Your task to perform on an android device: What's the weather going to be tomorrow? Image 0: 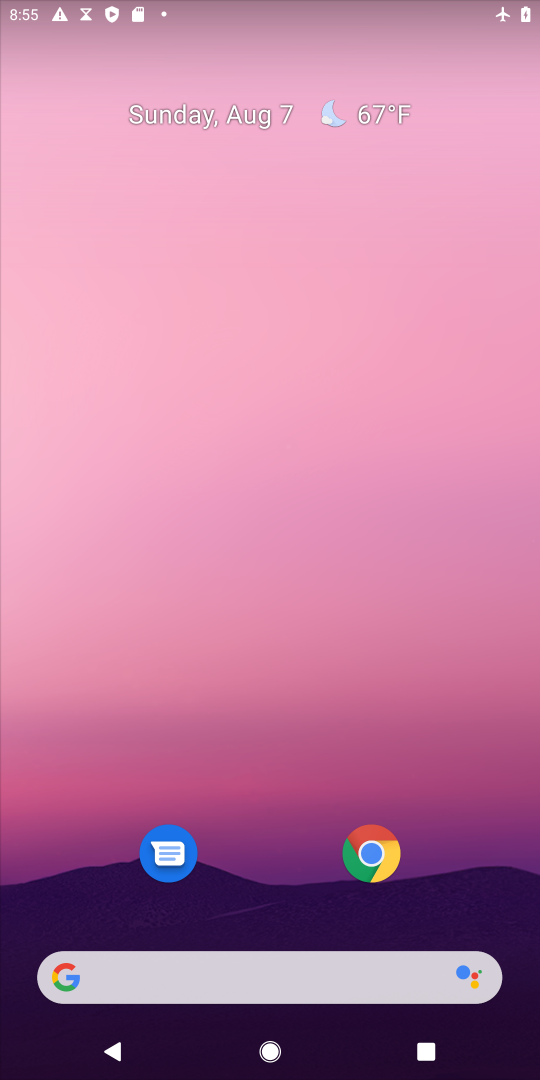
Step 0: drag from (199, 860) to (252, 291)
Your task to perform on an android device: What's the weather going to be tomorrow? Image 1: 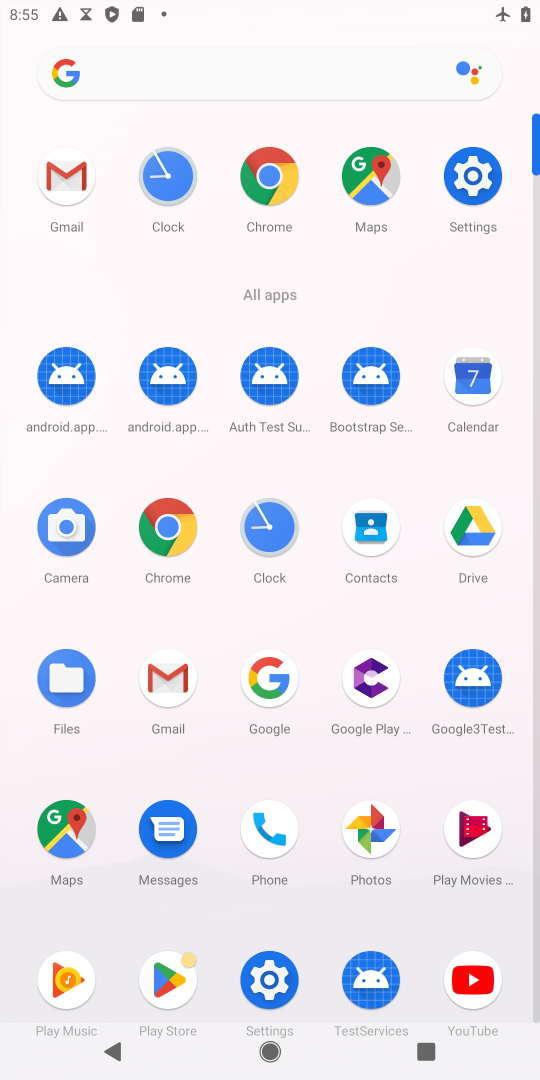
Step 1: click (271, 162)
Your task to perform on an android device: What's the weather going to be tomorrow? Image 2: 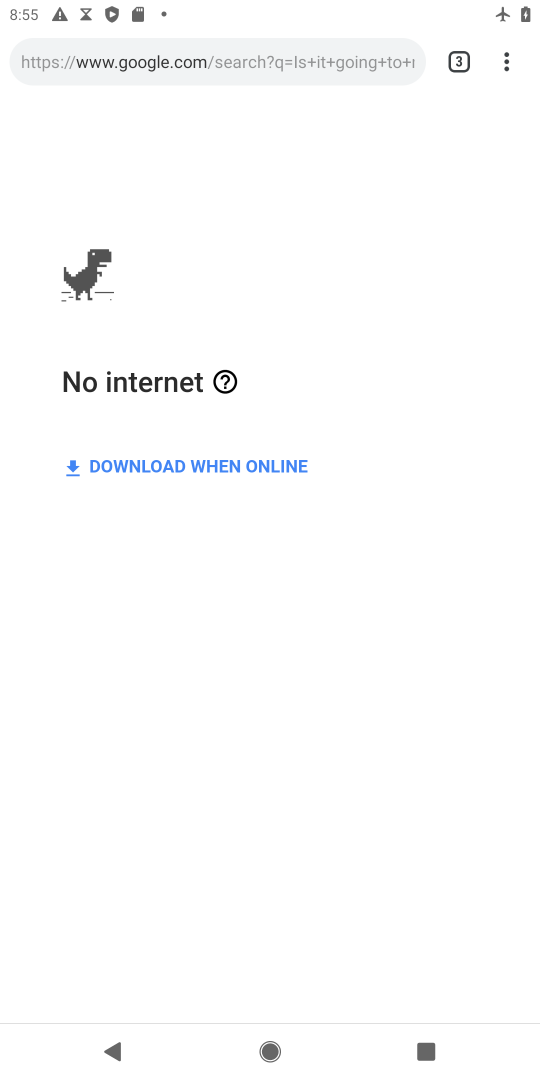
Step 2: click (523, 55)
Your task to perform on an android device: What's the weather going to be tomorrow? Image 3: 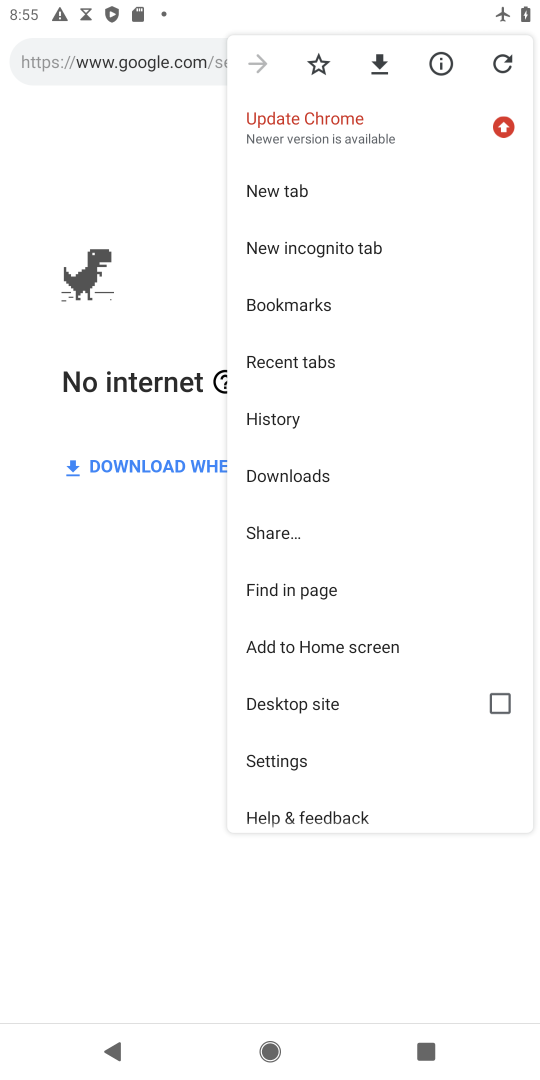
Step 3: click (304, 198)
Your task to perform on an android device: What's the weather going to be tomorrow? Image 4: 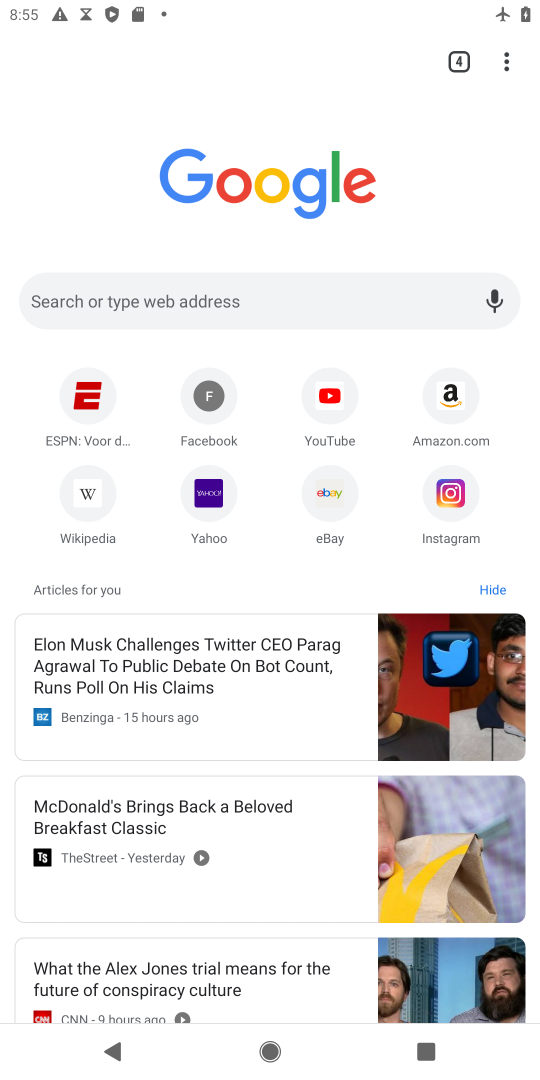
Step 4: click (234, 283)
Your task to perform on an android device: What's the weather going to be tomorrow? Image 5: 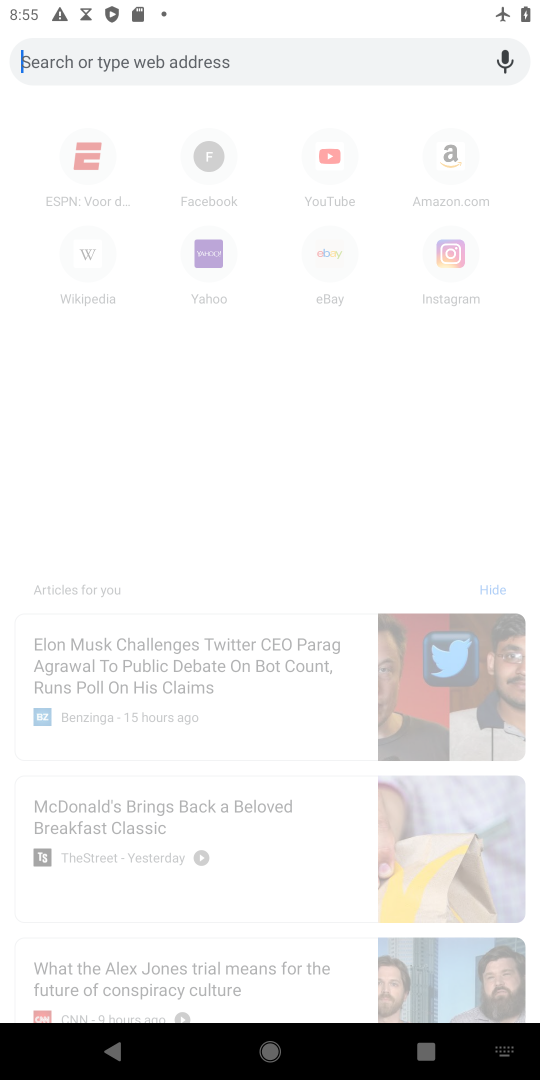
Step 5: type "What's the weather going to be tomorrow? "
Your task to perform on an android device: What's the weather going to be tomorrow? Image 6: 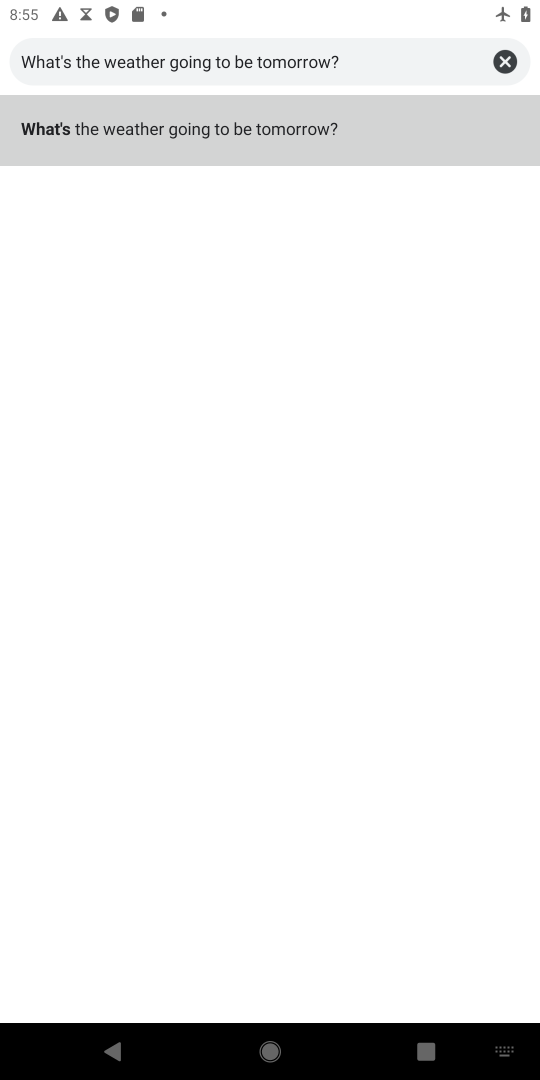
Step 6: click (226, 149)
Your task to perform on an android device: What's the weather going to be tomorrow? Image 7: 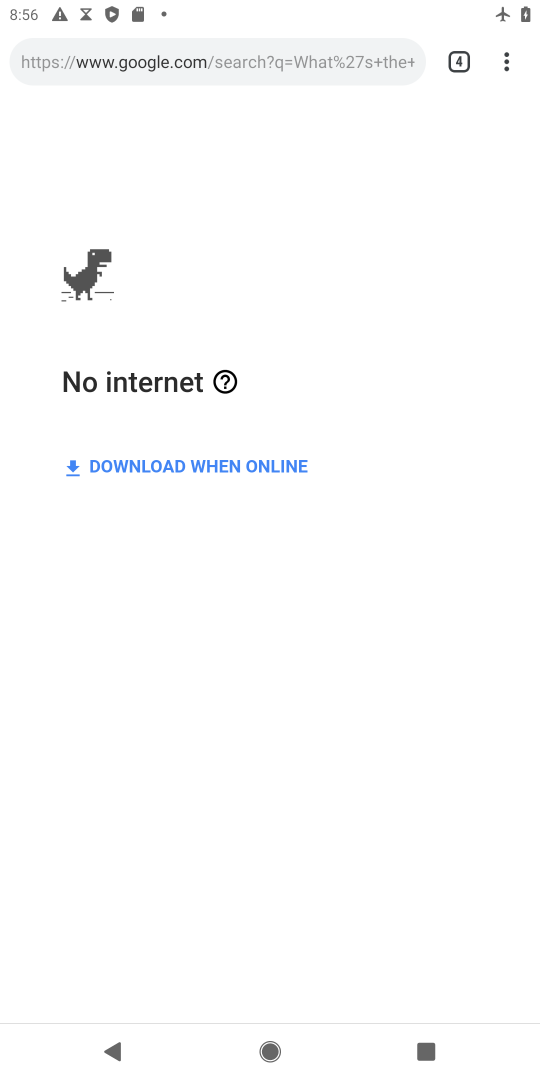
Step 7: task complete